Your task to perform on an android device: Open Google Chrome and open the bookmarks view Image 0: 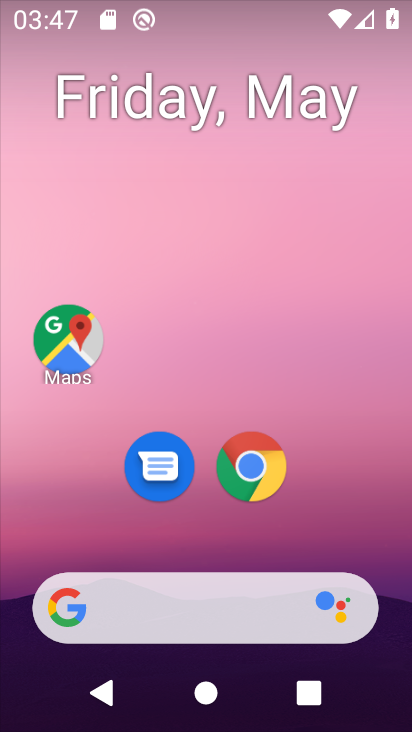
Step 0: drag from (6, 218) to (409, 254)
Your task to perform on an android device: Open Google Chrome and open the bookmarks view Image 1: 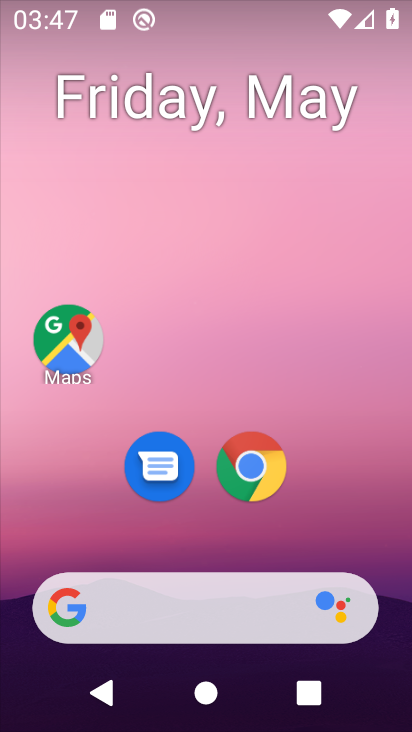
Step 1: click (393, 186)
Your task to perform on an android device: Open Google Chrome and open the bookmarks view Image 2: 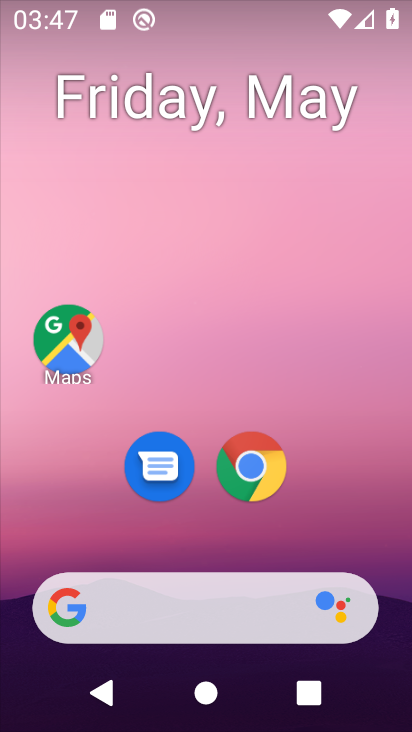
Step 2: click (243, 457)
Your task to perform on an android device: Open Google Chrome and open the bookmarks view Image 3: 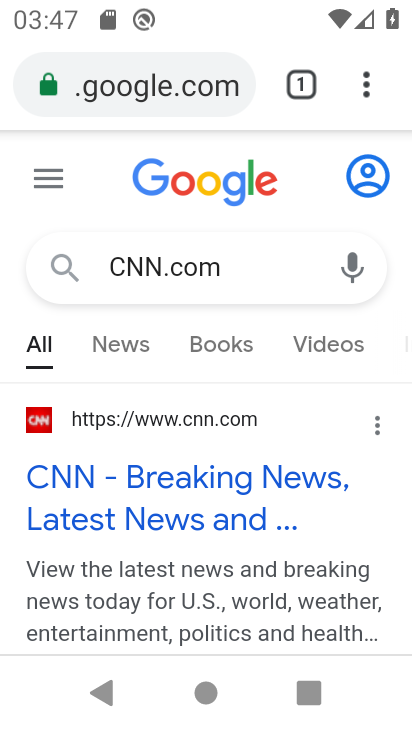
Step 3: click (361, 78)
Your task to perform on an android device: Open Google Chrome and open the bookmarks view Image 4: 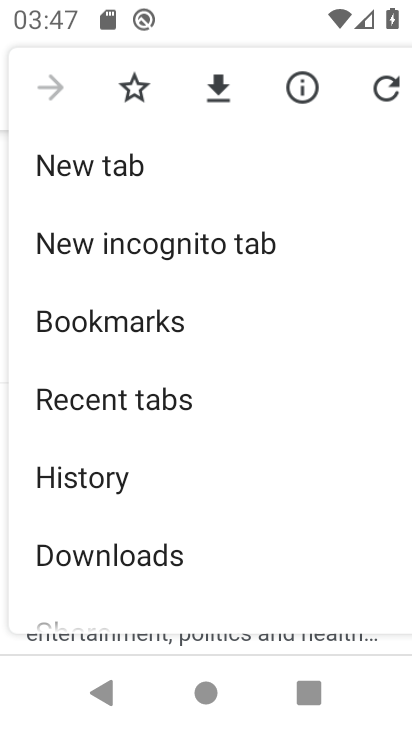
Step 4: click (77, 319)
Your task to perform on an android device: Open Google Chrome and open the bookmarks view Image 5: 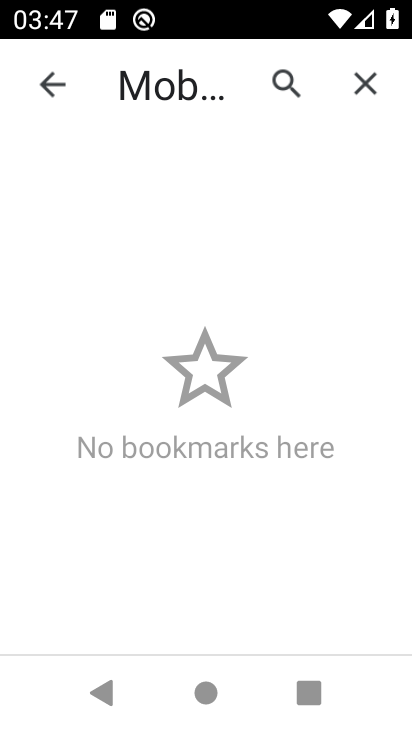
Step 5: task complete